Your task to perform on an android device: create a new album in the google photos Image 0: 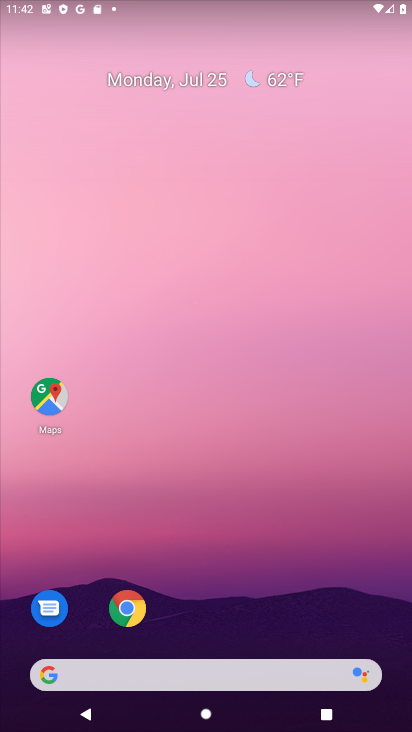
Step 0: drag from (266, 579) to (314, 92)
Your task to perform on an android device: create a new album in the google photos Image 1: 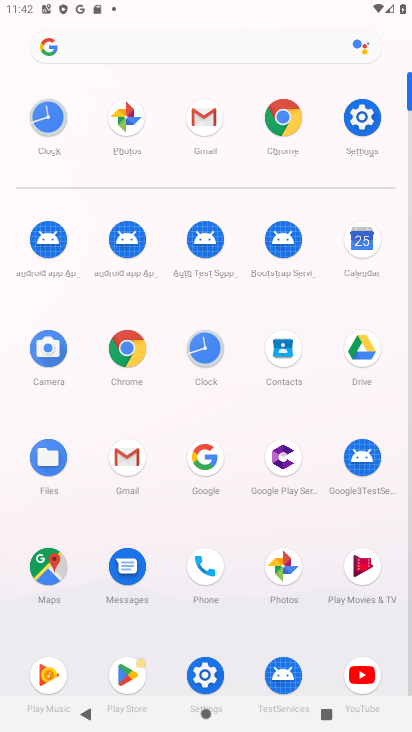
Step 1: click (125, 462)
Your task to perform on an android device: create a new album in the google photos Image 2: 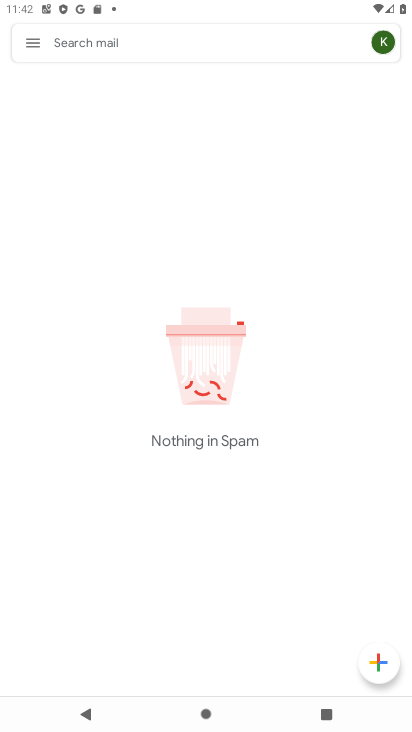
Step 2: press home button
Your task to perform on an android device: create a new album in the google photos Image 3: 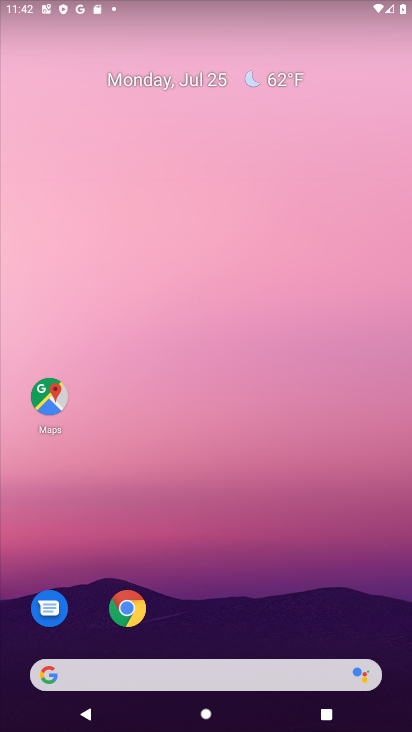
Step 3: drag from (287, 582) to (321, 194)
Your task to perform on an android device: create a new album in the google photos Image 4: 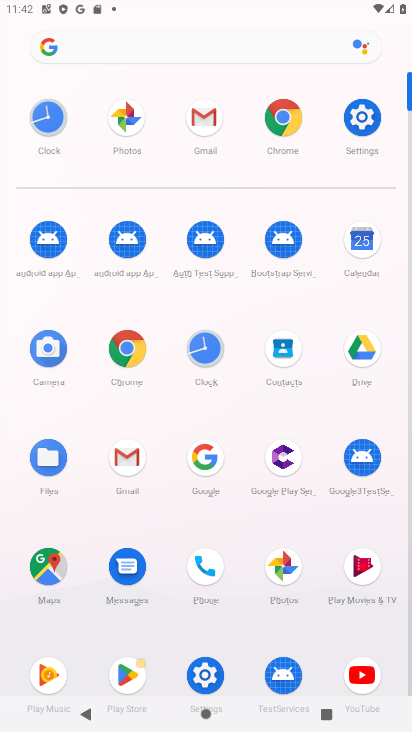
Step 4: click (276, 573)
Your task to perform on an android device: create a new album in the google photos Image 5: 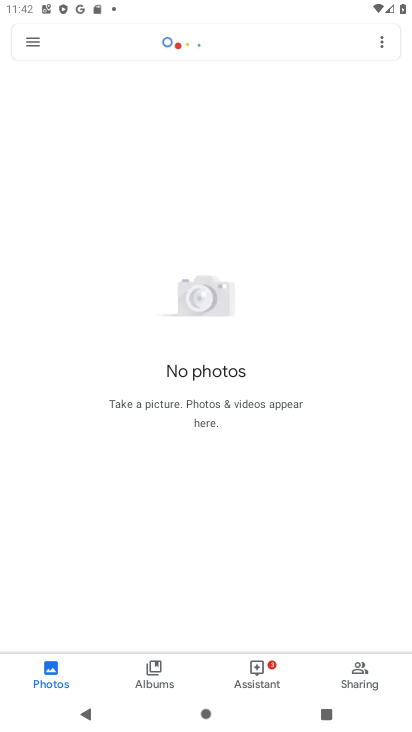
Step 5: task complete